Your task to perform on an android device: empty trash in google photos Image 0: 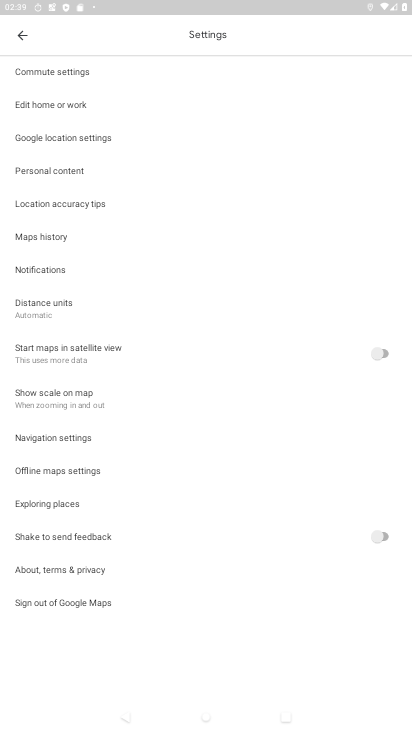
Step 0: press home button
Your task to perform on an android device: empty trash in google photos Image 1: 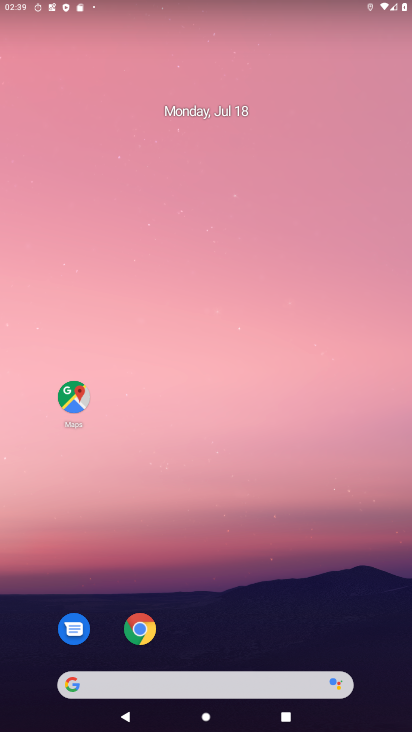
Step 1: drag from (215, 650) to (215, 57)
Your task to perform on an android device: empty trash in google photos Image 2: 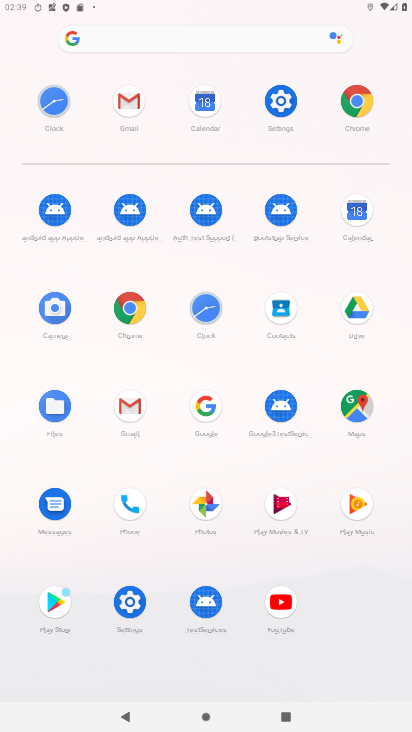
Step 2: click (209, 494)
Your task to perform on an android device: empty trash in google photos Image 3: 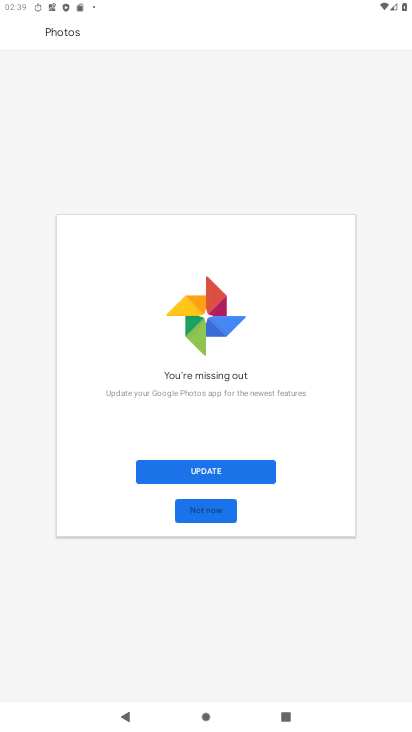
Step 3: click (213, 467)
Your task to perform on an android device: empty trash in google photos Image 4: 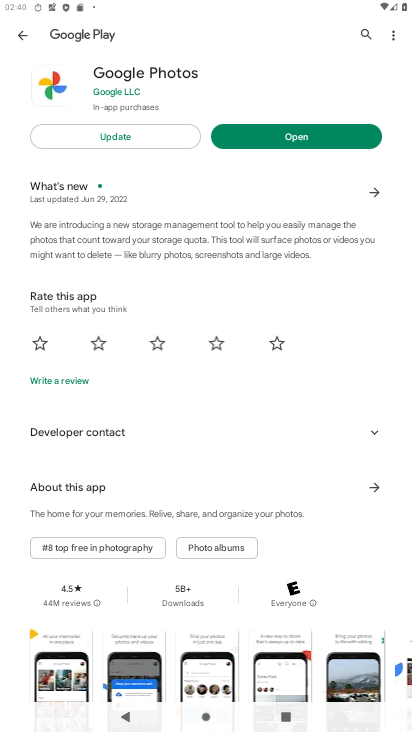
Step 4: click (297, 127)
Your task to perform on an android device: empty trash in google photos Image 5: 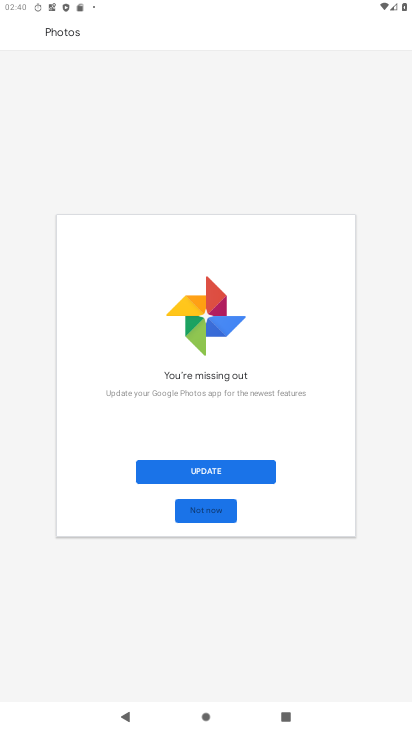
Step 5: click (205, 469)
Your task to perform on an android device: empty trash in google photos Image 6: 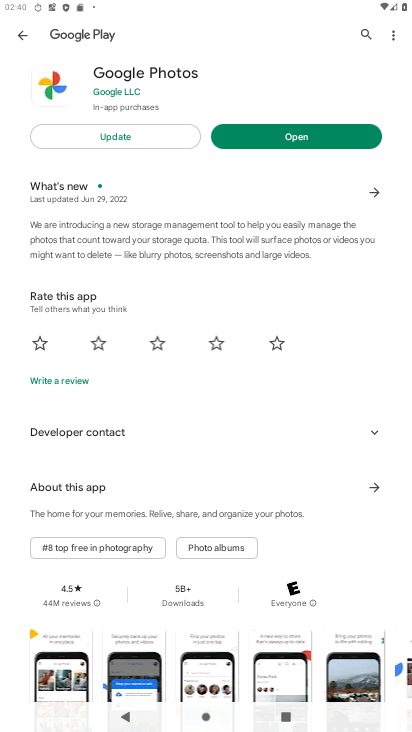
Step 6: click (124, 135)
Your task to perform on an android device: empty trash in google photos Image 7: 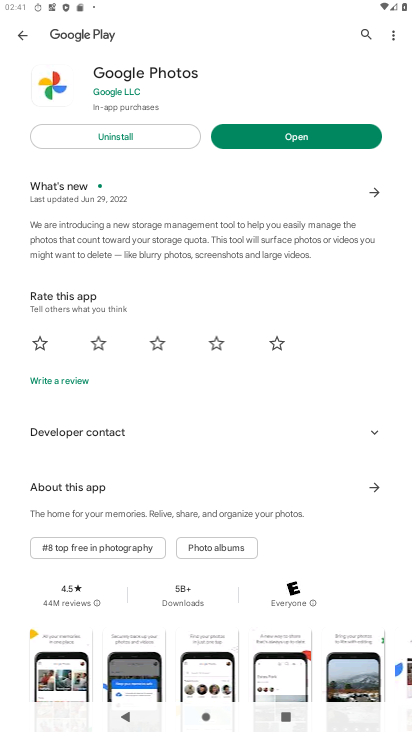
Step 7: click (291, 137)
Your task to perform on an android device: empty trash in google photos Image 8: 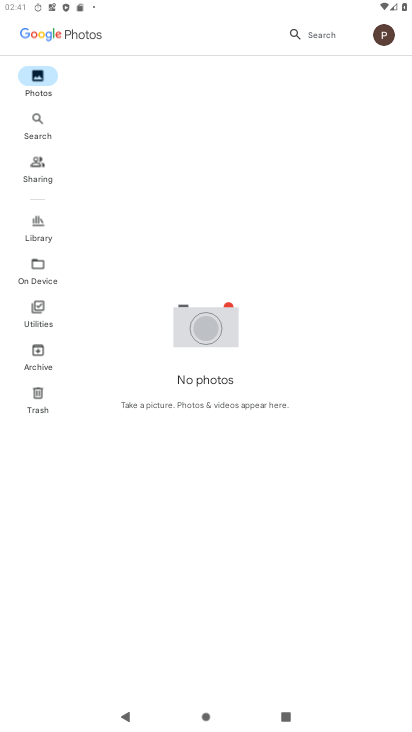
Step 8: click (38, 400)
Your task to perform on an android device: empty trash in google photos Image 9: 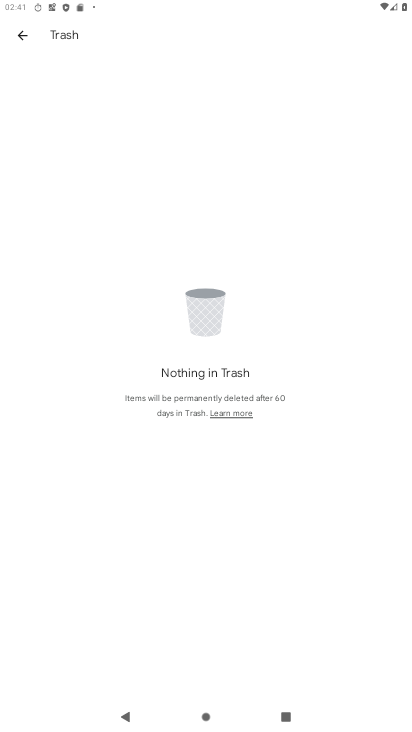
Step 9: task complete